Your task to perform on an android device: Open sound settings Image 0: 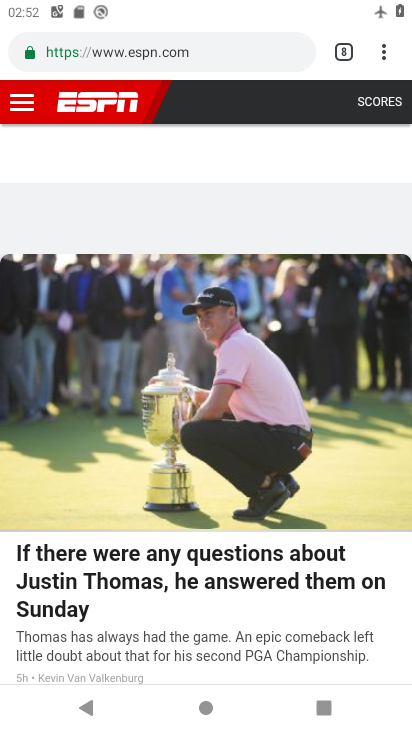
Step 0: press home button
Your task to perform on an android device: Open sound settings Image 1: 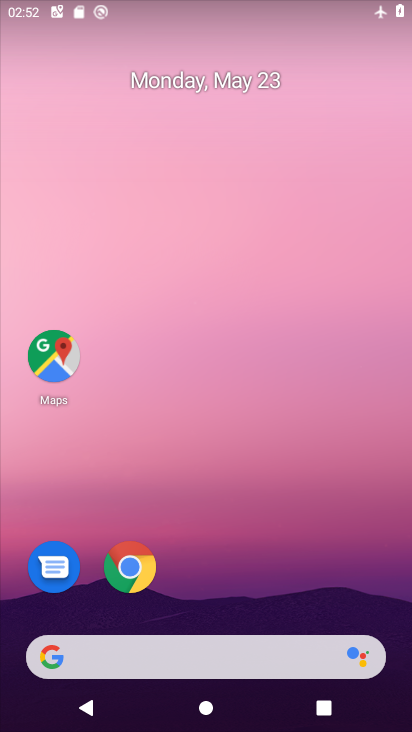
Step 1: drag from (147, 586) to (272, 157)
Your task to perform on an android device: Open sound settings Image 2: 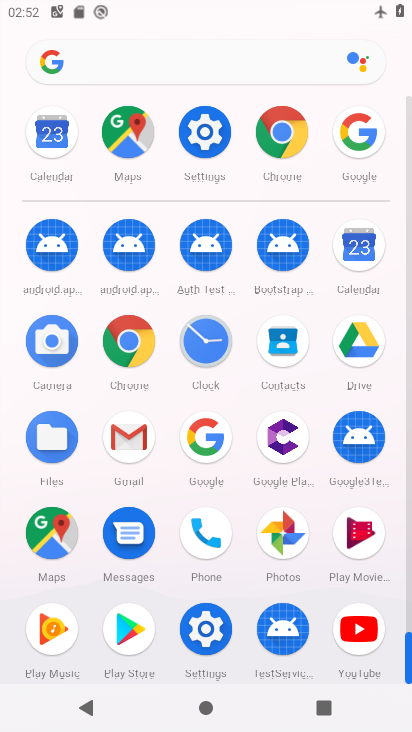
Step 2: click (208, 158)
Your task to perform on an android device: Open sound settings Image 3: 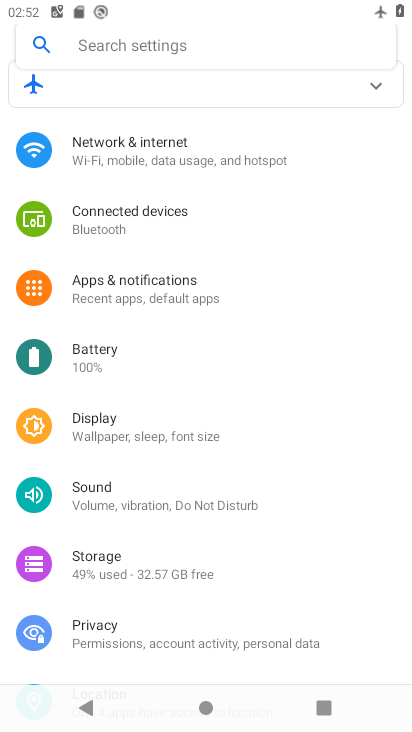
Step 3: click (116, 491)
Your task to perform on an android device: Open sound settings Image 4: 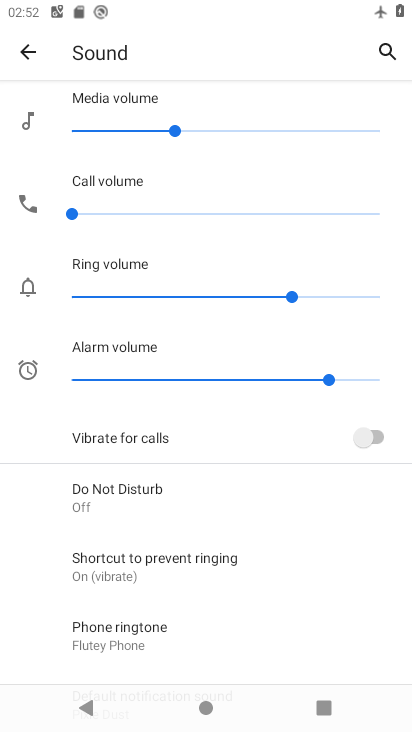
Step 4: task complete